Your task to perform on an android device: open app "Nova Launcher" (install if not already installed) Image 0: 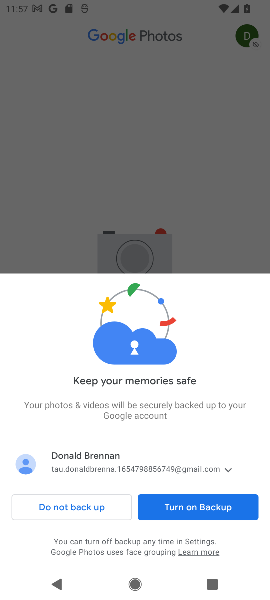
Step 0: press home button
Your task to perform on an android device: open app "Nova Launcher" (install if not already installed) Image 1: 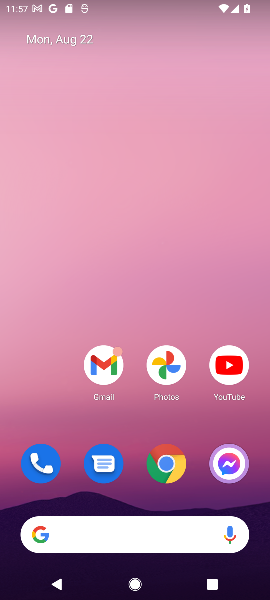
Step 1: drag from (163, 518) to (130, 167)
Your task to perform on an android device: open app "Nova Launcher" (install if not already installed) Image 2: 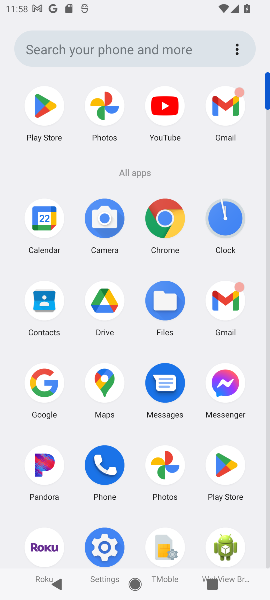
Step 2: click (42, 109)
Your task to perform on an android device: open app "Nova Launcher" (install if not already installed) Image 3: 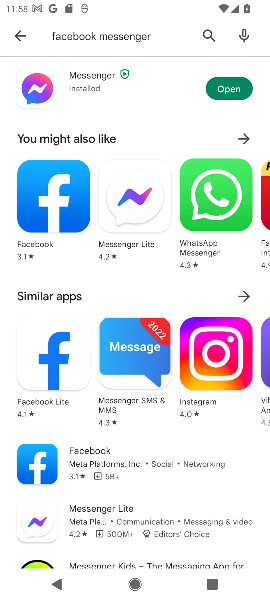
Step 3: click (201, 33)
Your task to perform on an android device: open app "Nova Launcher" (install if not already installed) Image 4: 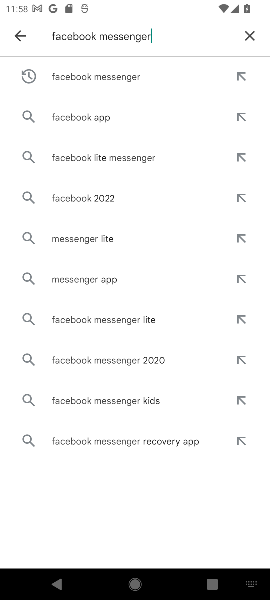
Step 4: click (246, 33)
Your task to perform on an android device: open app "Nova Launcher" (install if not already installed) Image 5: 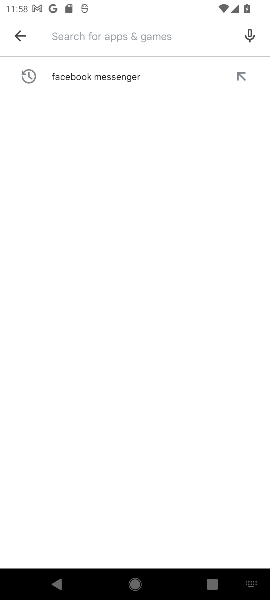
Step 5: type "Nova Launcher"
Your task to perform on an android device: open app "Nova Launcher" (install if not already installed) Image 6: 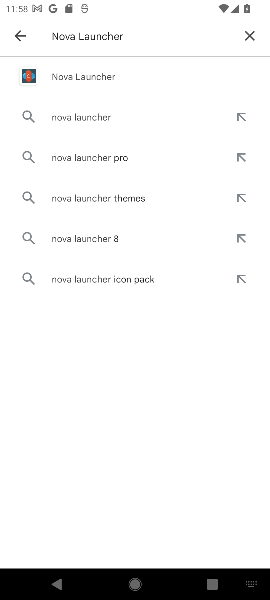
Step 6: click (84, 80)
Your task to perform on an android device: open app "Nova Launcher" (install if not already installed) Image 7: 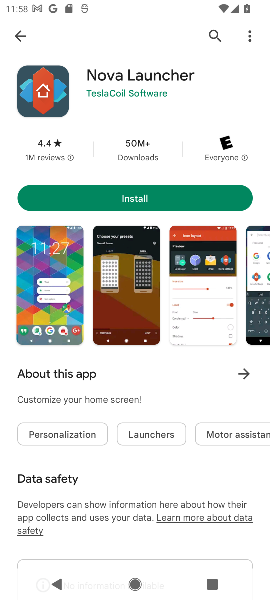
Step 7: click (157, 195)
Your task to perform on an android device: open app "Nova Launcher" (install if not already installed) Image 8: 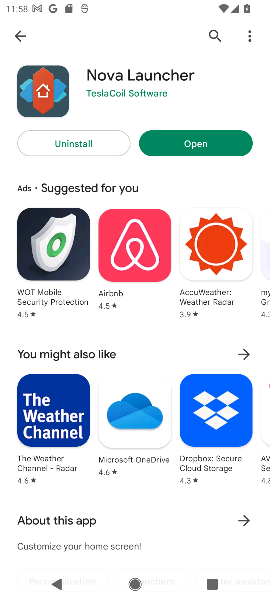
Step 8: click (177, 142)
Your task to perform on an android device: open app "Nova Launcher" (install if not already installed) Image 9: 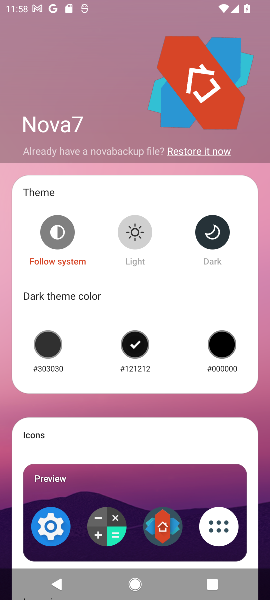
Step 9: task complete